Your task to perform on an android device: delete the emails in spam in the gmail app Image 0: 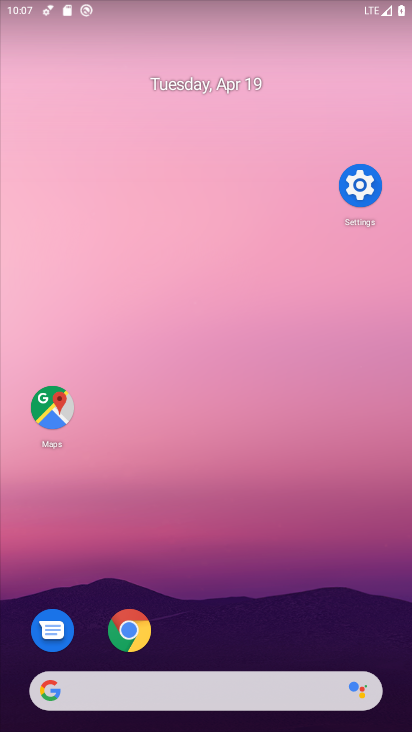
Step 0: drag from (148, 244) to (143, 24)
Your task to perform on an android device: delete the emails in spam in the gmail app Image 1: 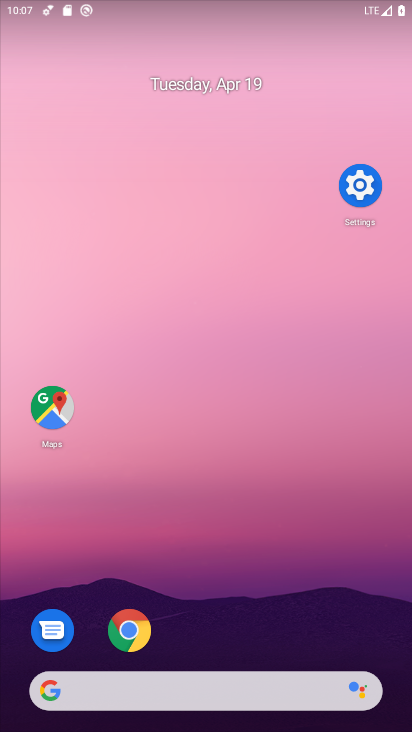
Step 1: drag from (205, 692) to (163, 41)
Your task to perform on an android device: delete the emails in spam in the gmail app Image 2: 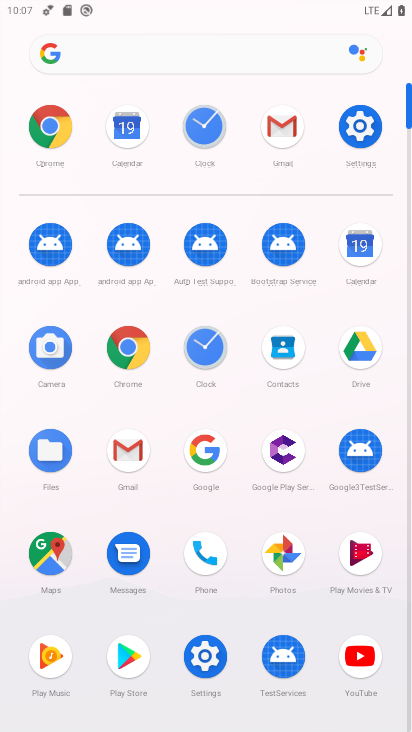
Step 2: click (133, 478)
Your task to perform on an android device: delete the emails in spam in the gmail app Image 3: 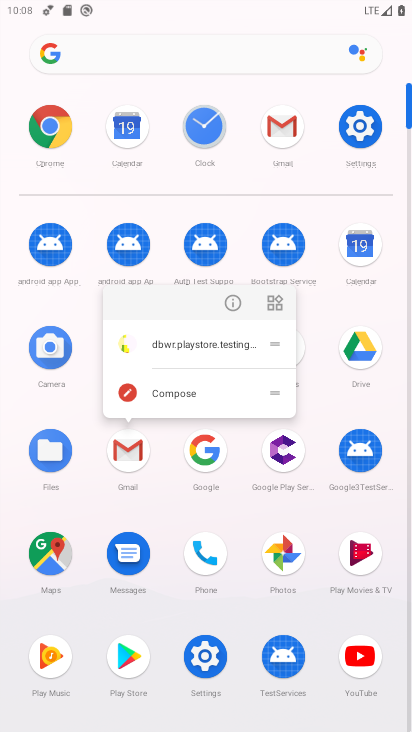
Step 3: click (133, 478)
Your task to perform on an android device: delete the emails in spam in the gmail app Image 4: 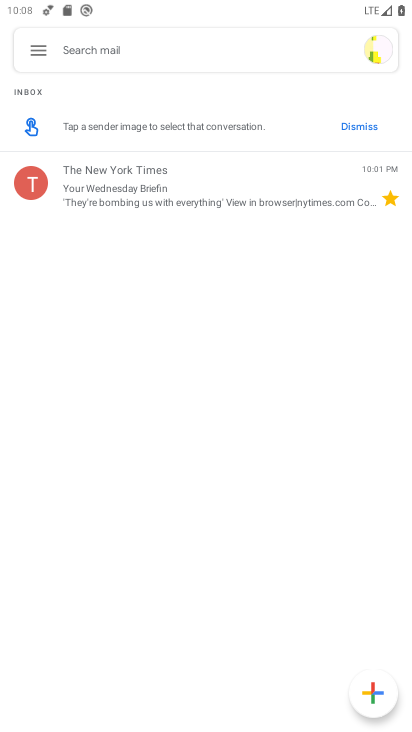
Step 4: click (221, 222)
Your task to perform on an android device: delete the emails in spam in the gmail app Image 5: 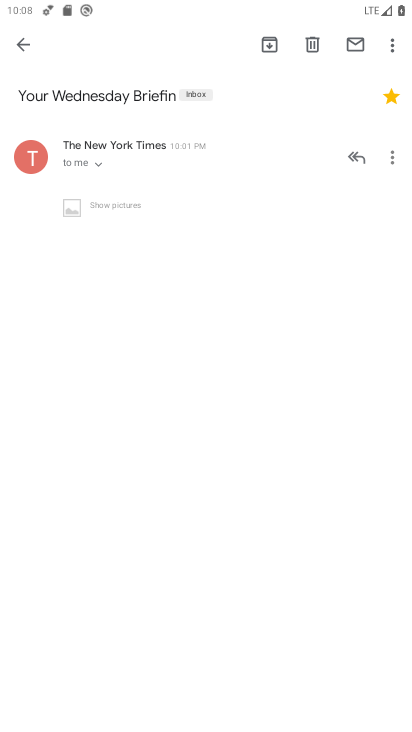
Step 5: click (317, 39)
Your task to perform on an android device: delete the emails in spam in the gmail app Image 6: 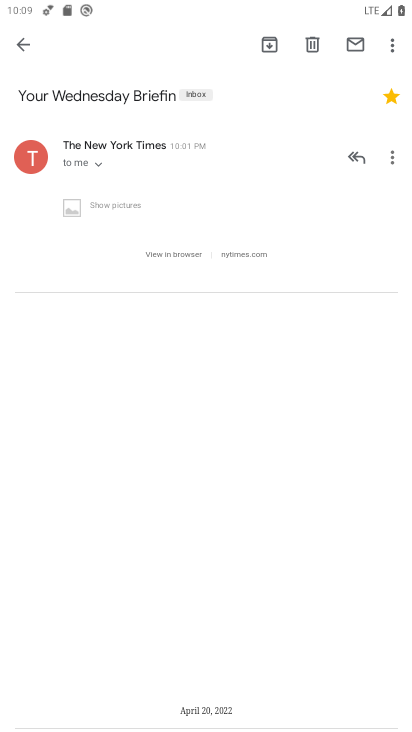
Step 6: click (315, 45)
Your task to perform on an android device: delete the emails in spam in the gmail app Image 7: 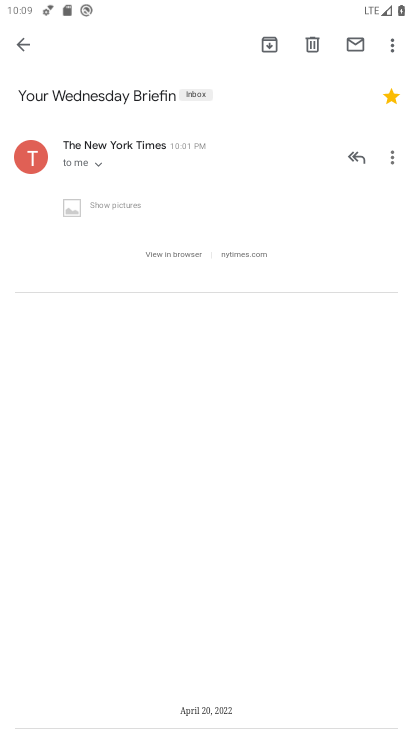
Step 7: click (315, 45)
Your task to perform on an android device: delete the emails in spam in the gmail app Image 8: 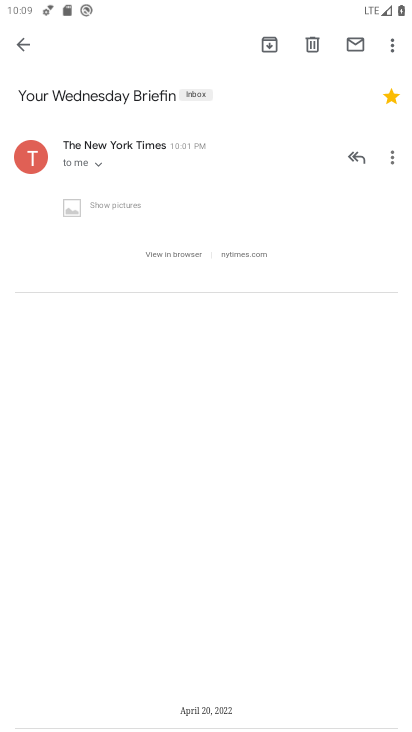
Step 8: click (314, 49)
Your task to perform on an android device: delete the emails in spam in the gmail app Image 9: 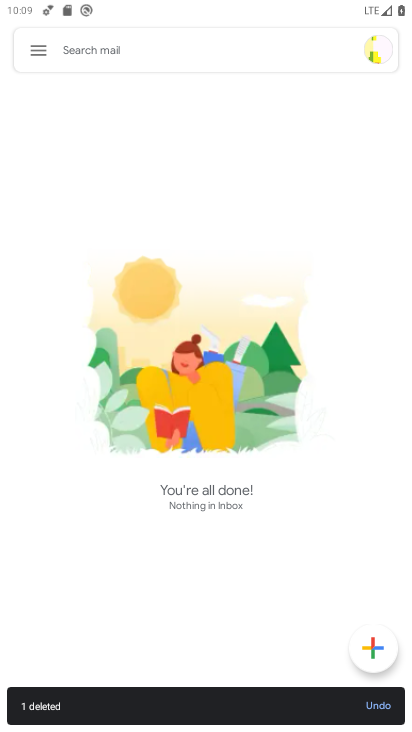
Step 9: task complete